Your task to perform on an android device: set the stopwatch Image 0: 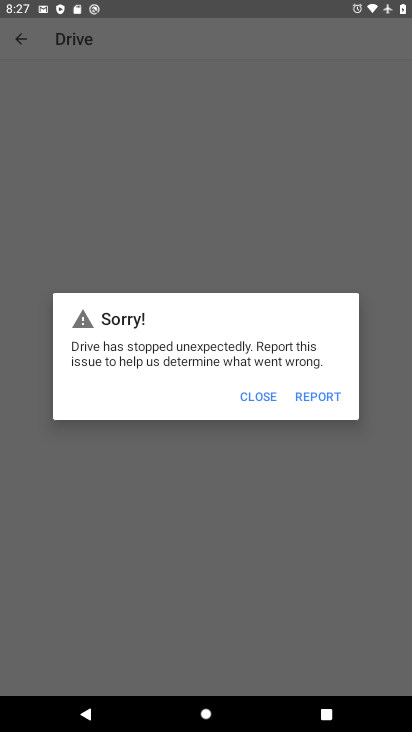
Step 0: press home button
Your task to perform on an android device: set the stopwatch Image 1: 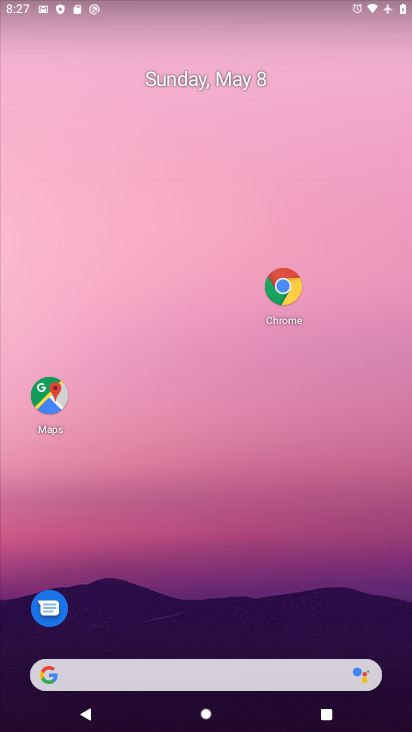
Step 1: drag from (187, 666) to (295, 123)
Your task to perform on an android device: set the stopwatch Image 2: 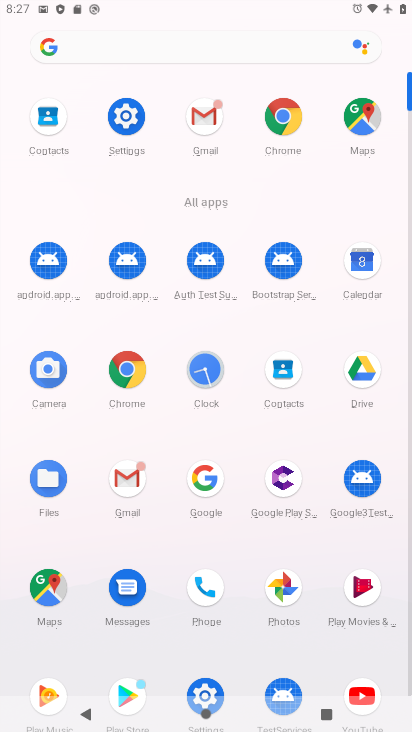
Step 2: click (200, 374)
Your task to perform on an android device: set the stopwatch Image 3: 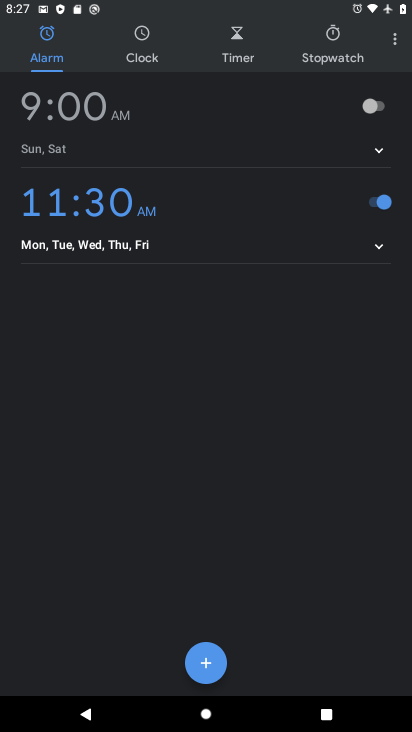
Step 3: click (336, 41)
Your task to perform on an android device: set the stopwatch Image 4: 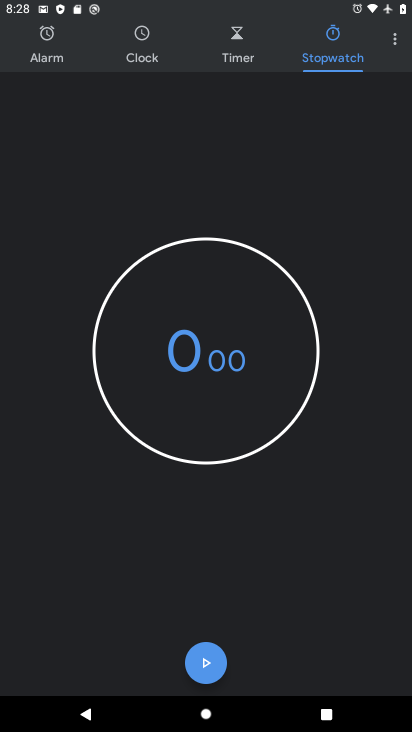
Step 4: task complete